Your task to perform on an android device: What's the weather going to be tomorrow? Image 0: 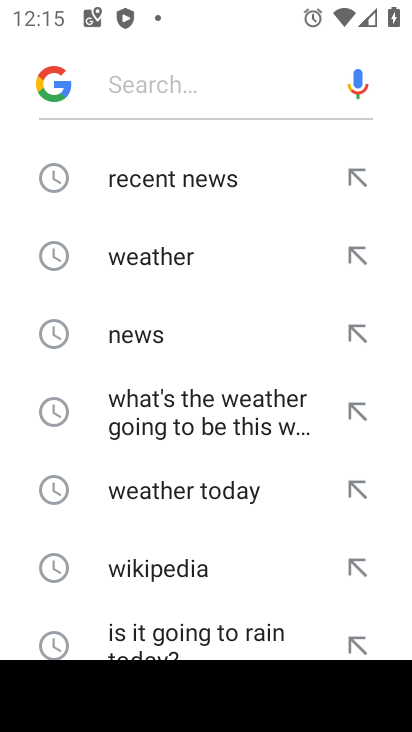
Step 0: press home button
Your task to perform on an android device: What's the weather going to be tomorrow? Image 1: 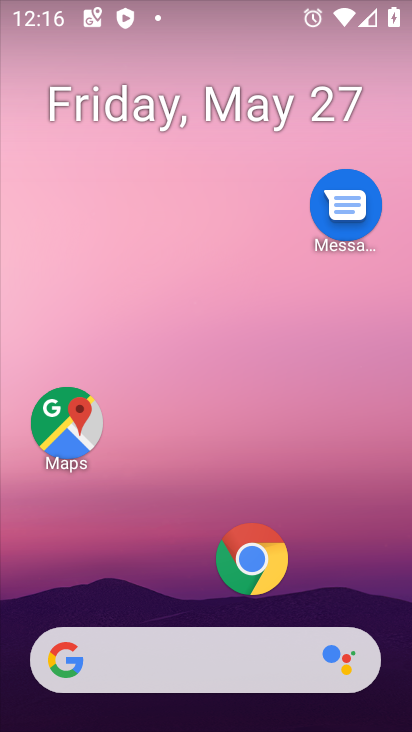
Step 1: drag from (110, 684) to (122, 307)
Your task to perform on an android device: What's the weather going to be tomorrow? Image 2: 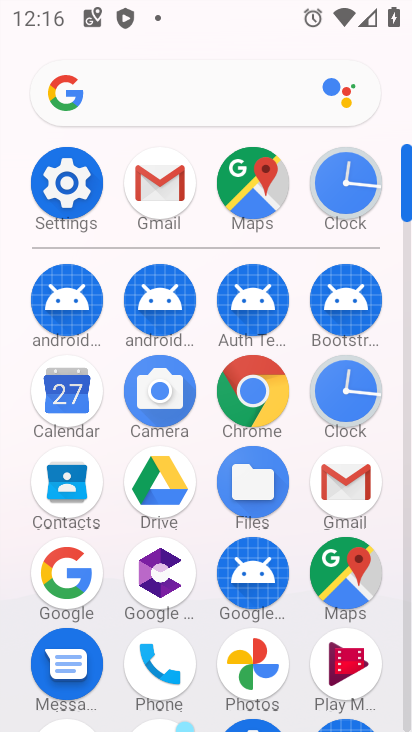
Step 2: click (77, 570)
Your task to perform on an android device: What's the weather going to be tomorrow? Image 3: 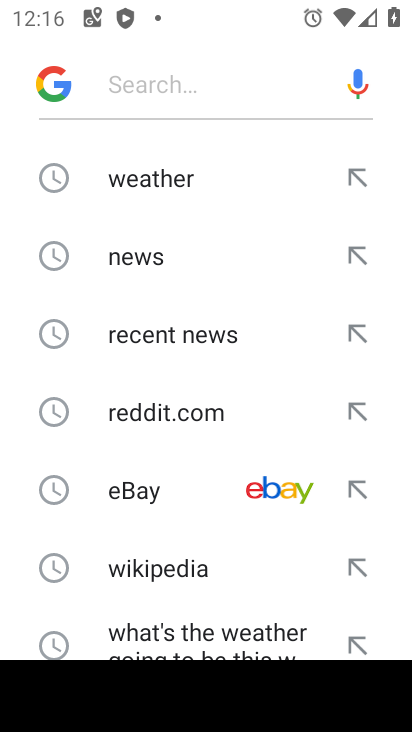
Step 3: click (145, 181)
Your task to perform on an android device: What's the weather going to be tomorrow? Image 4: 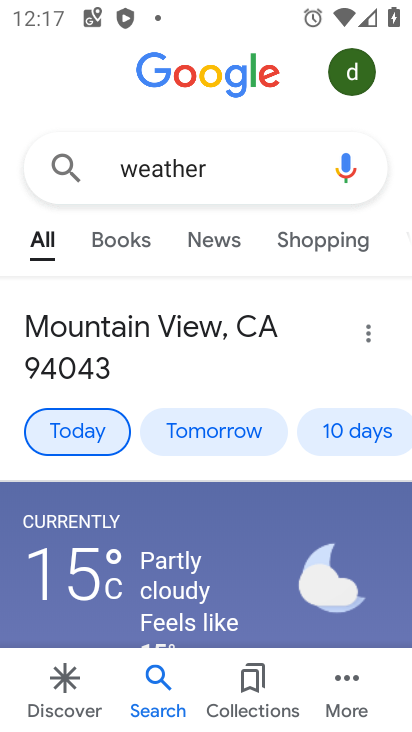
Step 4: click (217, 435)
Your task to perform on an android device: What's the weather going to be tomorrow? Image 5: 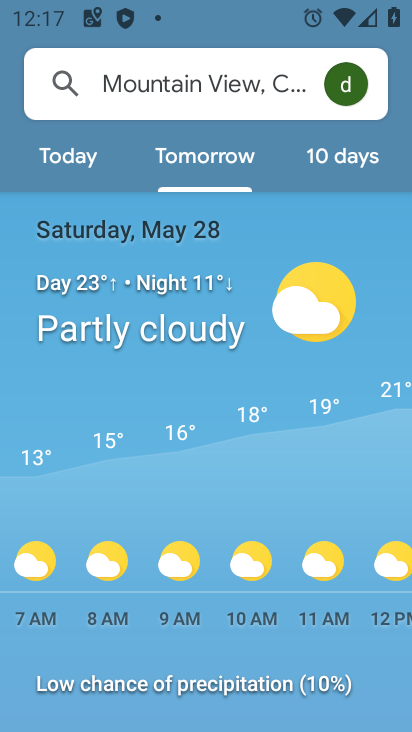
Step 5: task complete